Your task to perform on an android device: Go to CNN.com Image 0: 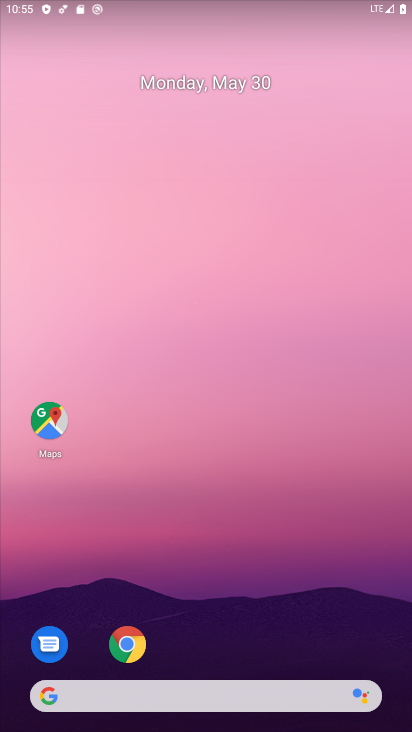
Step 0: click (124, 639)
Your task to perform on an android device: Go to CNN.com Image 1: 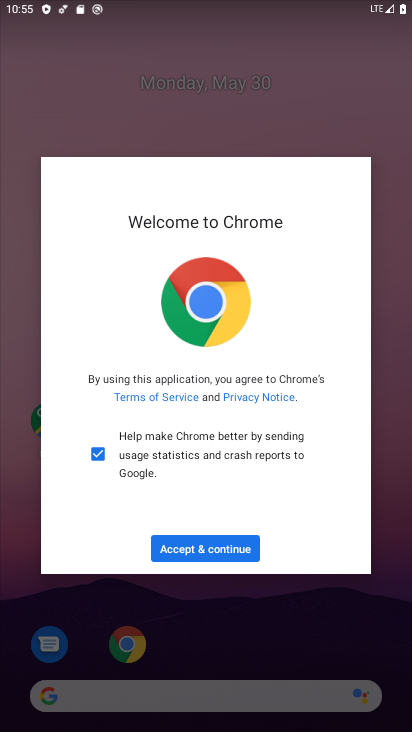
Step 1: click (202, 545)
Your task to perform on an android device: Go to CNN.com Image 2: 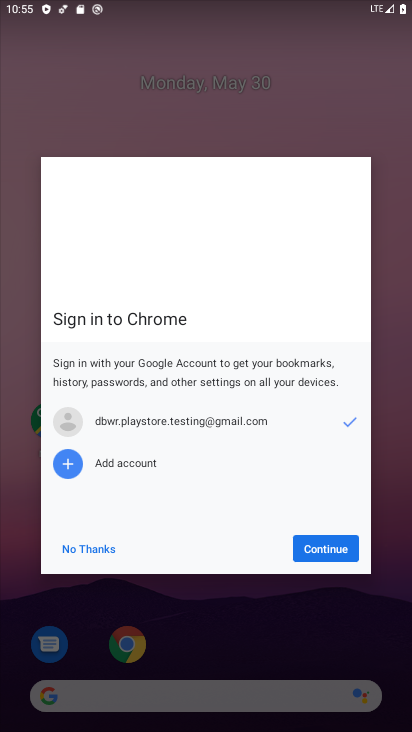
Step 2: click (321, 549)
Your task to perform on an android device: Go to CNN.com Image 3: 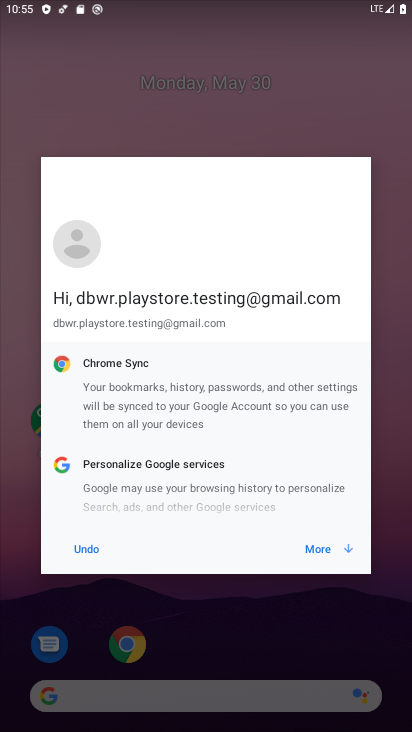
Step 3: click (321, 549)
Your task to perform on an android device: Go to CNN.com Image 4: 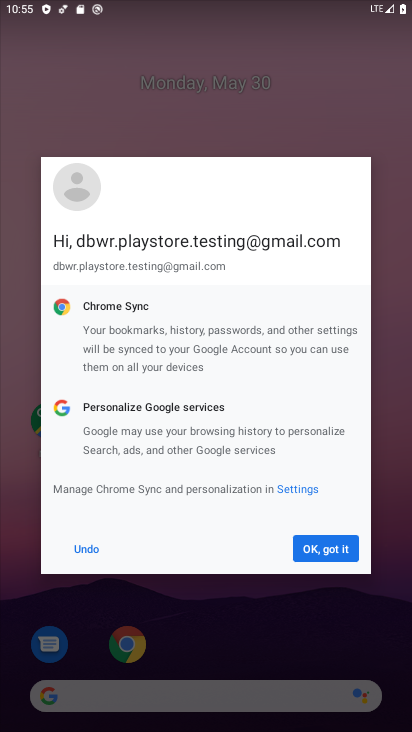
Step 4: click (321, 549)
Your task to perform on an android device: Go to CNN.com Image 5: 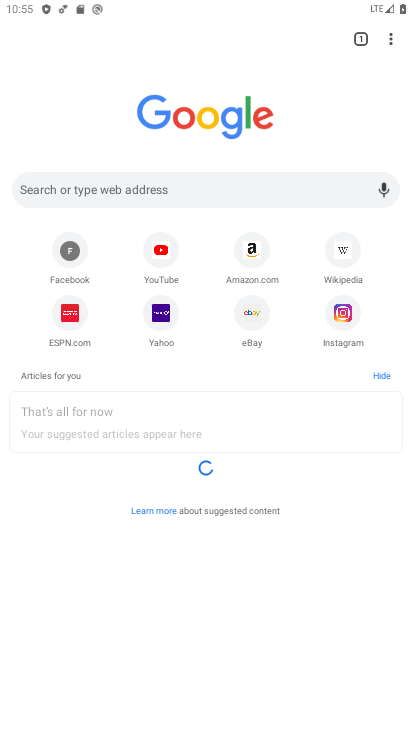
Step 5: click (75, 188)
Your task to perform on an android device: Go to CNN.com Image 6: 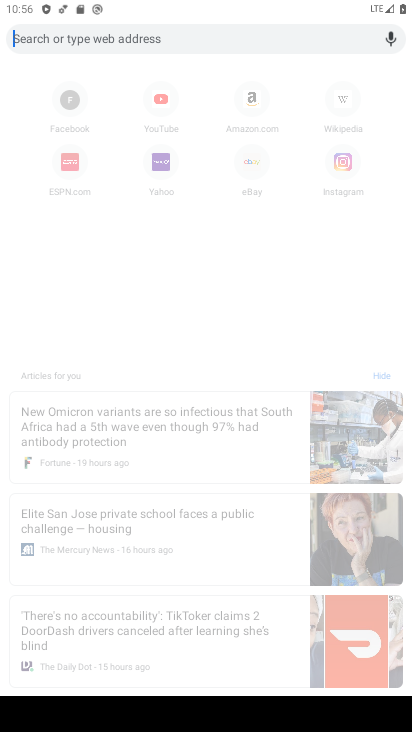
Step 6: type "CNN.com"
Your task to perform on an android device: Go to CNN.com Image 7: 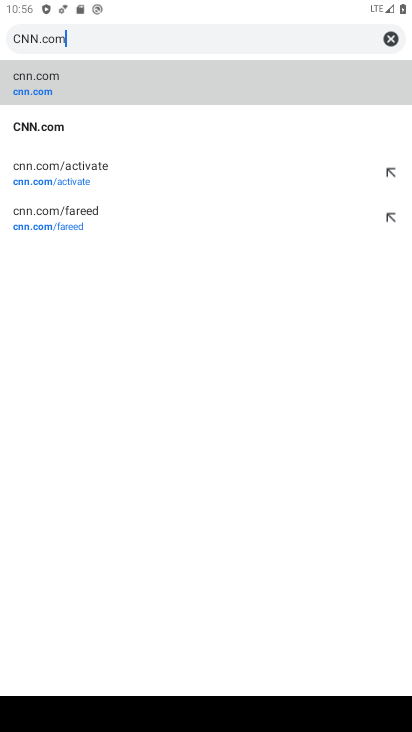
Step 7: click (181, 86)
Your task to perform on an android device: Go to CNN.com Image 8: 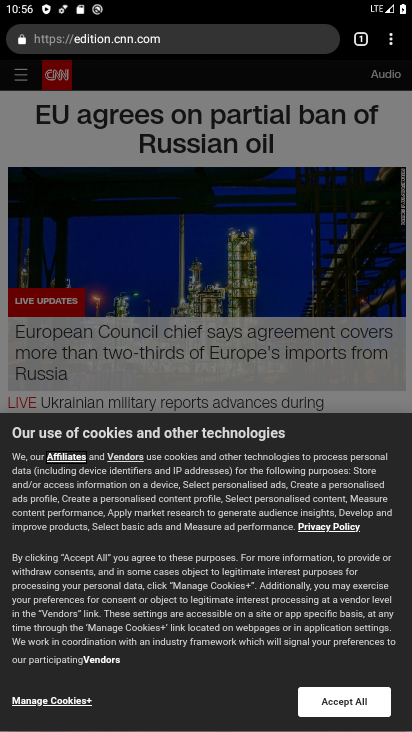
Step 8: task complete